Your task to perform on an android device: turn vacation reply on in the gmail app Image 0: 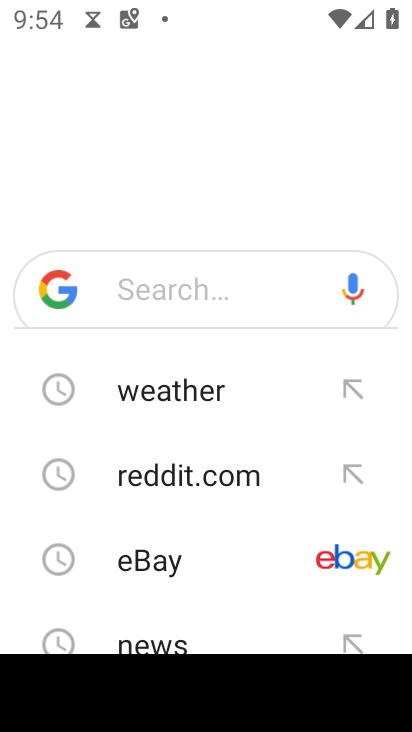
Step 0: press home button
Your task to perform on an android device: turn vacation reply on in the gmail app Image 1: 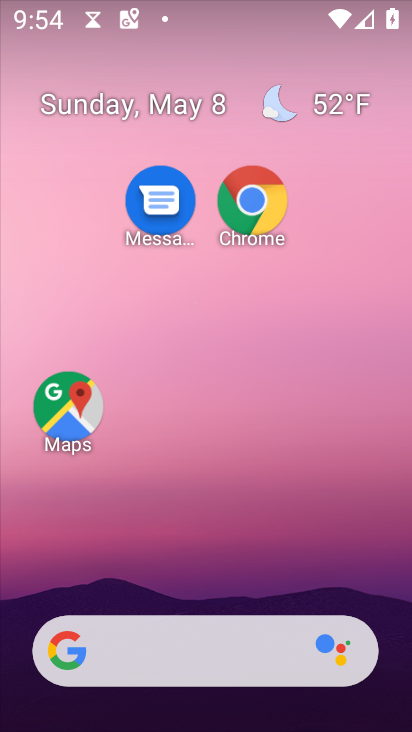
Step 1: drag from (207, 593) to (187, 43)
Your task to perform on an android device: turn vacation reply on in the gmail app Image 2: 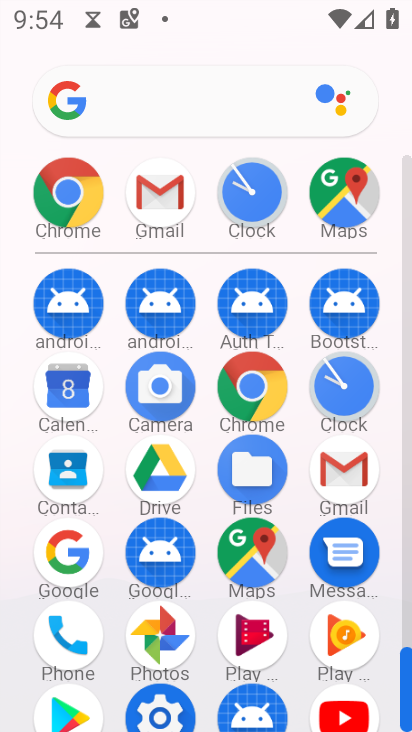
Step 2: click (336, 457)
Your task to perform on an android device: turn vacation reply on in the gmail app Image 3: 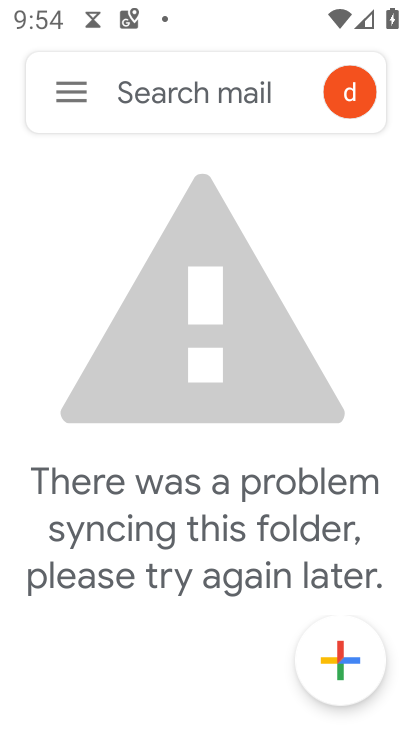
Step 3: click (55, 92)
Your task to perform on an android device: turn vacation reply on in the gmail app Image 4: 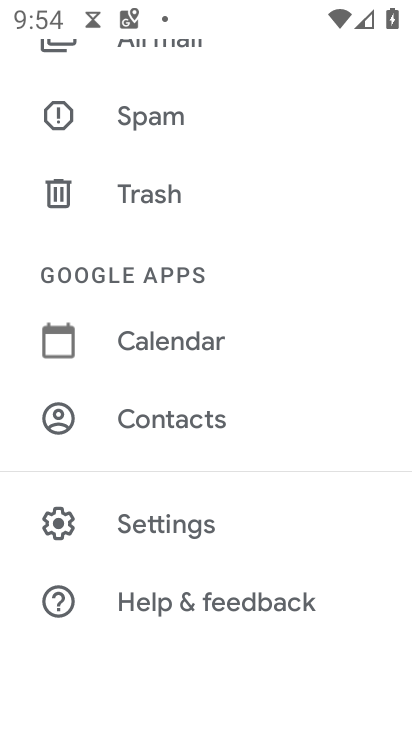
Step 4: click (164, 517)
Your task to perform on an android device: turn vacation reply on in the gmail app Image 5: 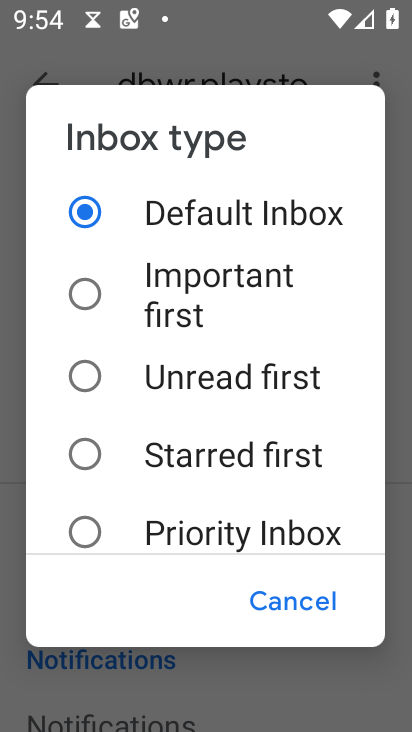
Step 5: click (297, 590)
Your task to perform on an android device: turn vacation reply on in the gmail app Image 6: 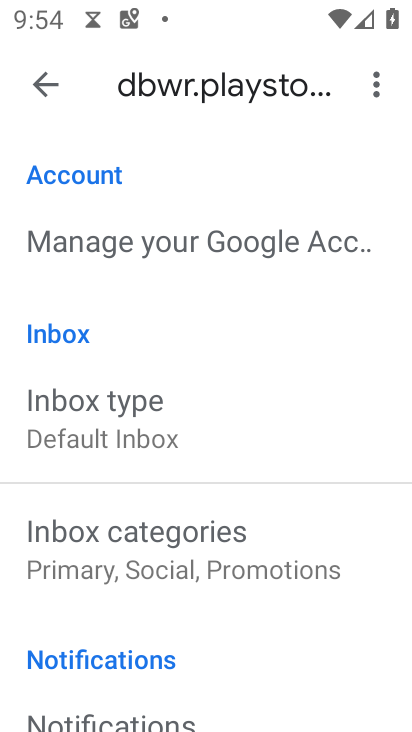
Step 6: drag from (257, 580) to (230, 47)
Your task to perform on an android device: turn vacation reply on in the gmail app Image 7: 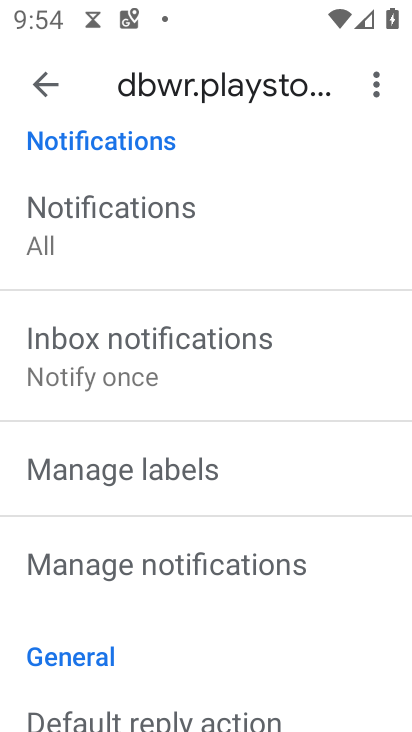
Step 7: drag from (231, 616) to (189, 93)
Your task to perform on an android device: turn vacation reply on in the gmail app Image 8: 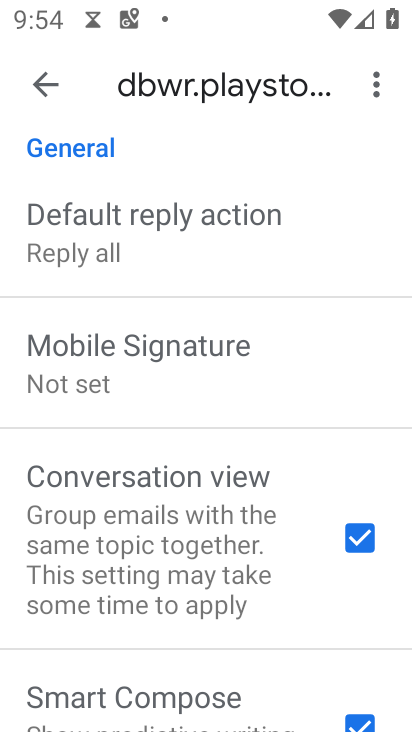
Step 8: drag from (220, 631) to (151, 145)
Your task to perform on an android device: turn vacation reply on in the gmail app Image 9: 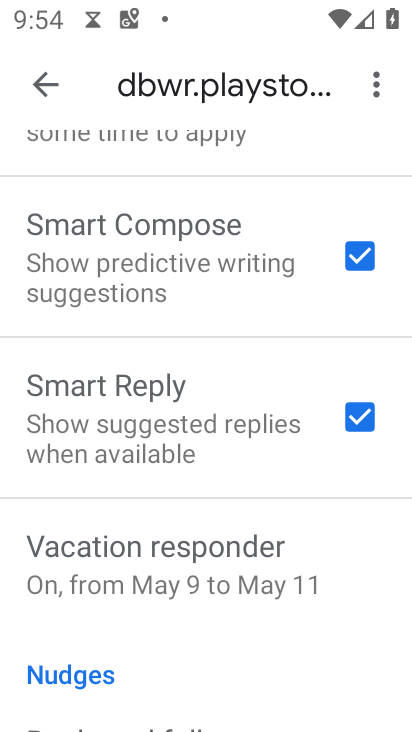
Step 9: click (274, 590)
Your task to perform on an android device: turn vacation reply on in the gmail app Image 10: 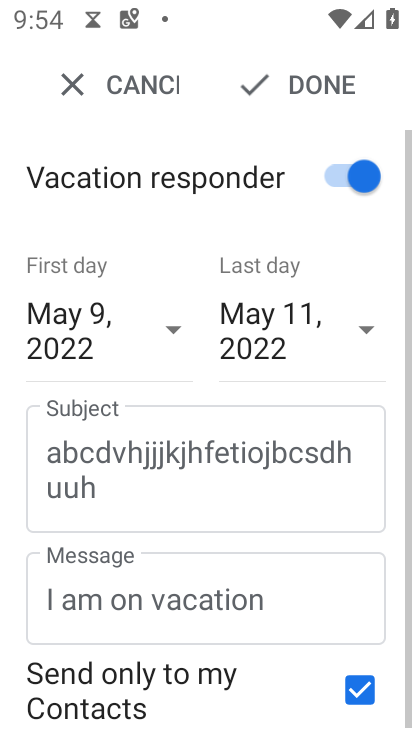
Step 10: click (324, 88)
Your task to perform on an android device: turn vacation reply on in the gmail app Image 11: 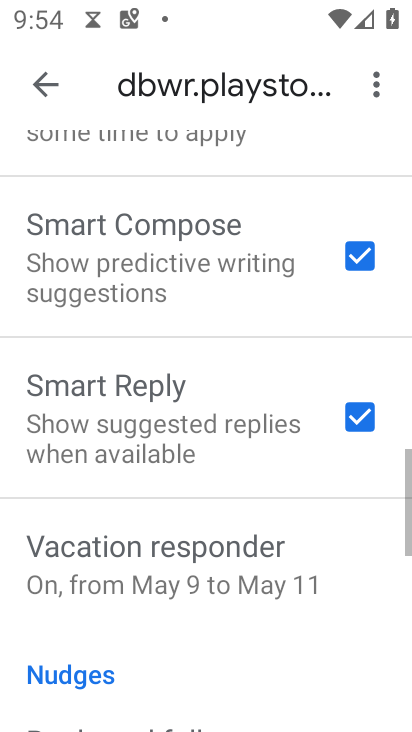
Step 11: task complete